Your task to perform on an android device: empty trash in the gmail app Image 0: 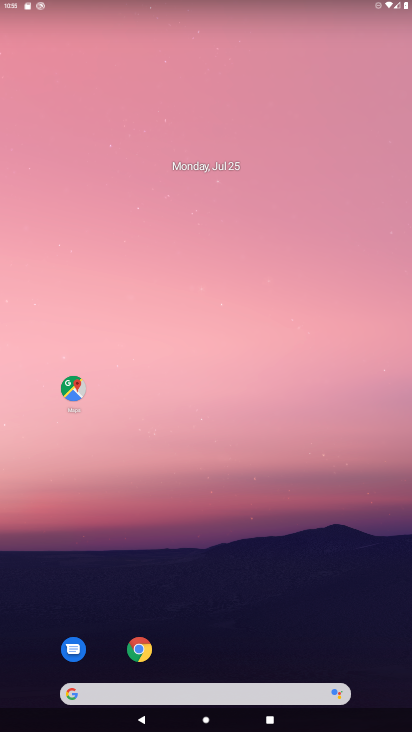
Step 0: drag from (389, 674) to (346, 140)
Your task to perform on an android device: empty trash in the gmail app Image 1: 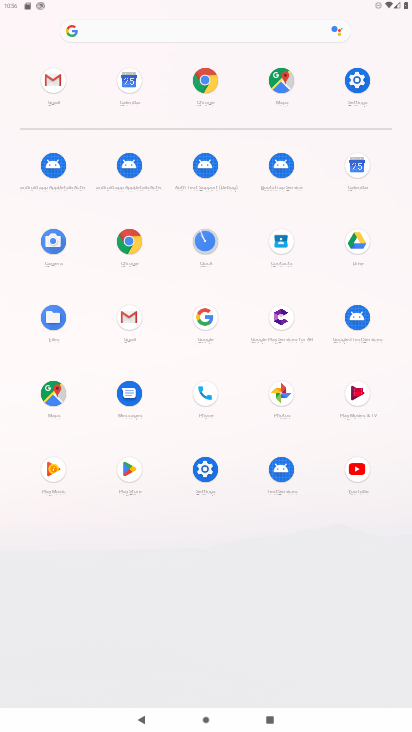
Step 1: click (130, 318)
Your task to perform on an android device: empty trash in the gmail app Image 2: 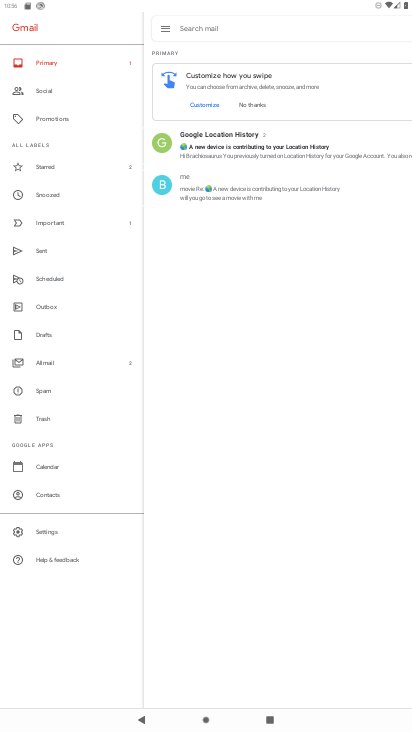
Step 2: click (40, 418)
Your task to perform on an android device: empty trash in the gmail app Image 3: 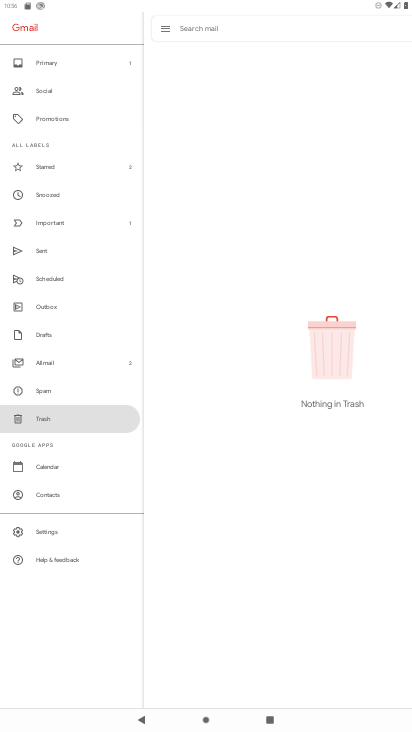
Step 3: task complete